Your task to perform on an android device: change the clock style Image 0: 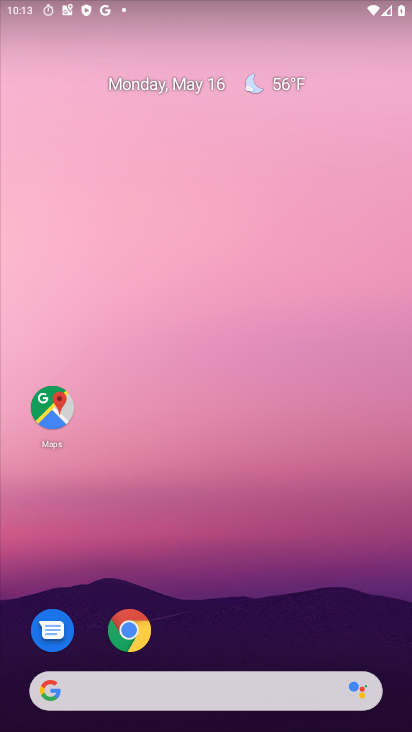
Step 0: drag from (186, 640) to (287, 2)
Your task to perform on an android device: change the clock style Image 1: 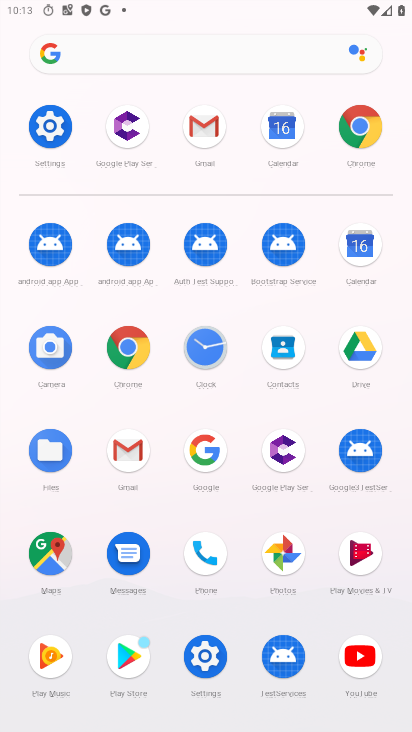
Step 1: click (216, 352)
Your task to perform on an android device: change the clock style Image 2: 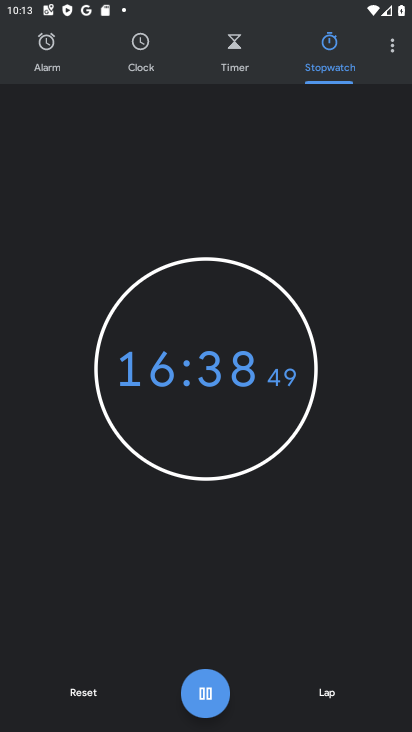
Step 2: click (80, 685)
Your task to perform on an android device: change the clock style Image 3: 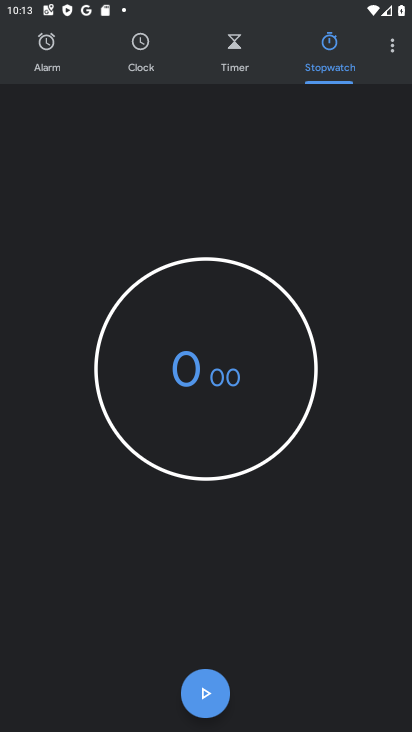
Step 3: click (397, 56)
Your task to perform on an android device: change the clock style Image 4: 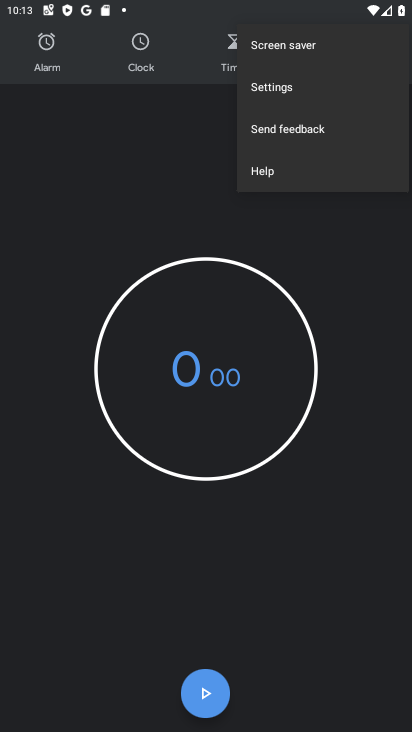
Step 4: click (274, 95)
Your task to perform on an android device: change the clock style Image 5: 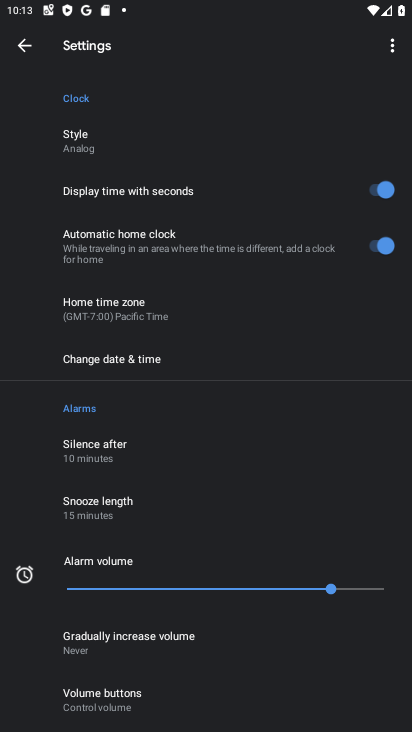
Step 5: click (105, 143)
Your task to perform on an android device: change the clock style Image 6: 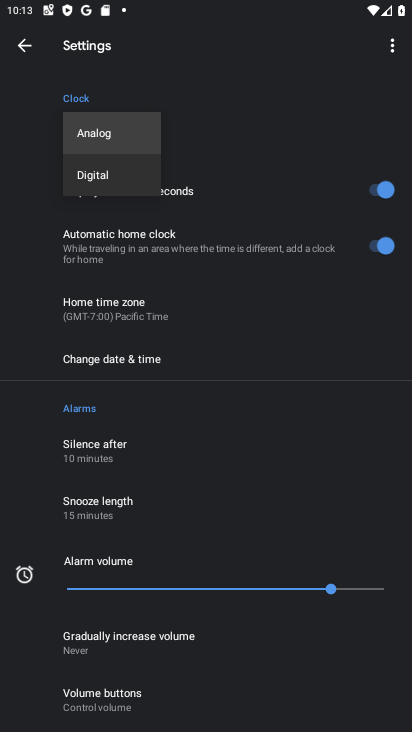
Step 6: click (100, 178)
Your task to perform on an android device: change the clock style Image 7: 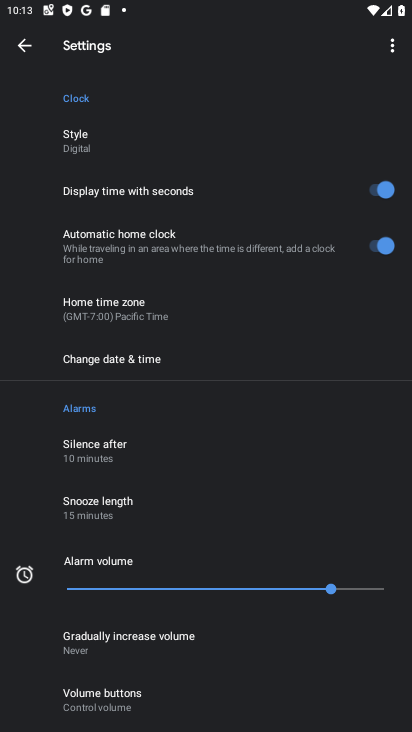
Step 7: task complete